Your task to perform on an android device: Search for seafood restaurants on Google Maps Image 0: 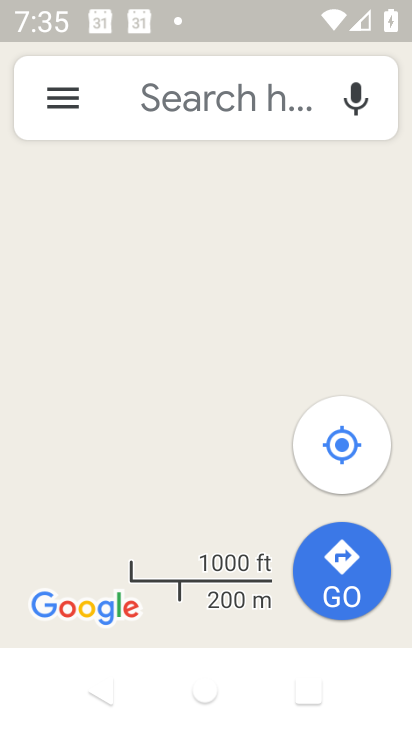
Step 0: press home button
Your task to perform on an android device: Search for seafood restaurants on Google Maps Image 1: 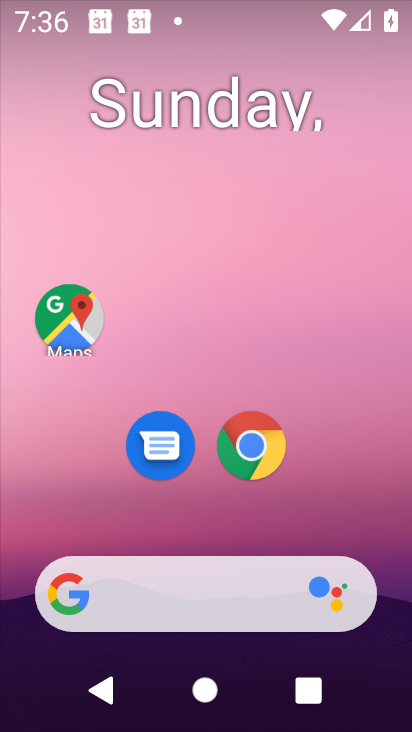
Step 1: click (52, 322)
Your task to perform on an android device: Search for seafood restaurants on Google Maps Image 2: 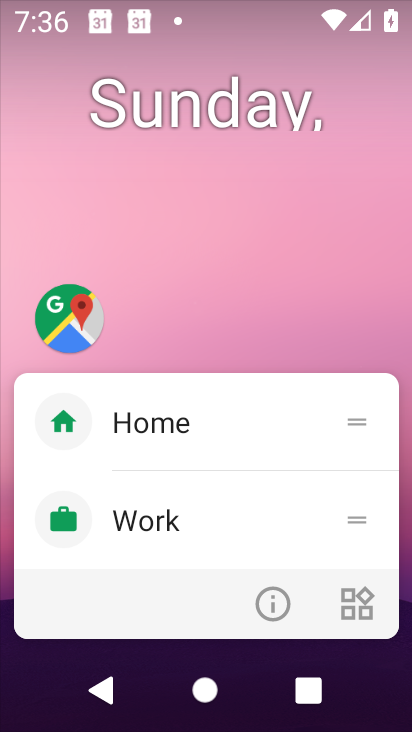
Step 2: click (39, 317)
Your task to perform on an android device: Search for seafood restaurants on Google Maps Image 3: 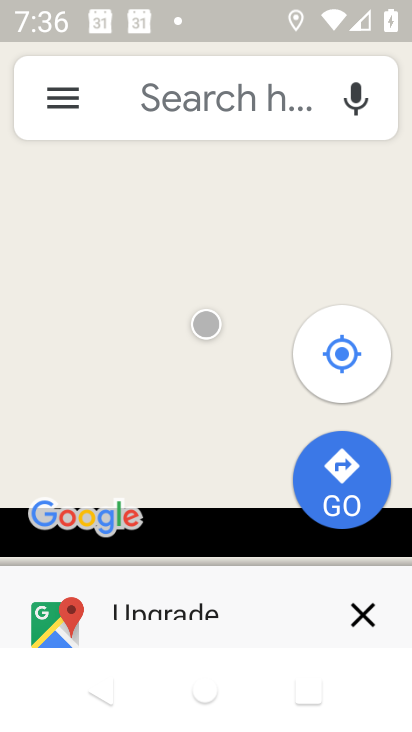
Step 3: click (165, 96)
Your task to perform on an android device: Search for seafood restaurants on Google Maps Image 4: 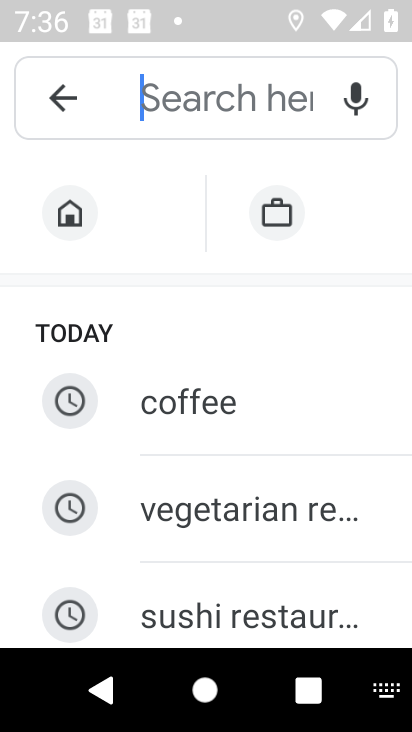
Step 4: drag from (2, 643) to (185, 151)
Your task to perform on an android device: Search for seafood restaurants on Google Maps Image 5: 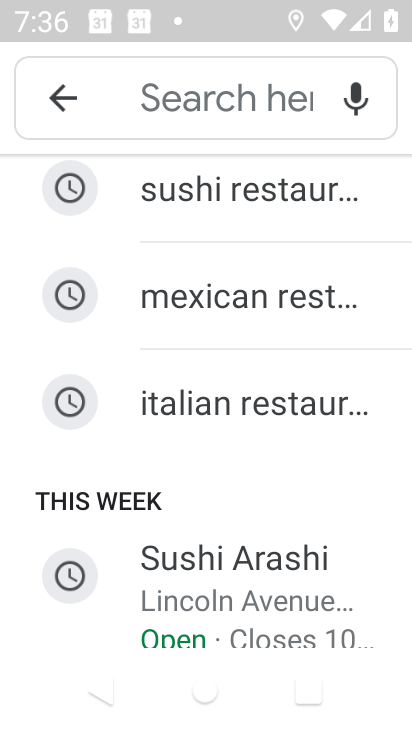
Step 5: click (162, 103)
Your task to perform on an android device: Search for seafood restaurants on Google Maps Image 6: 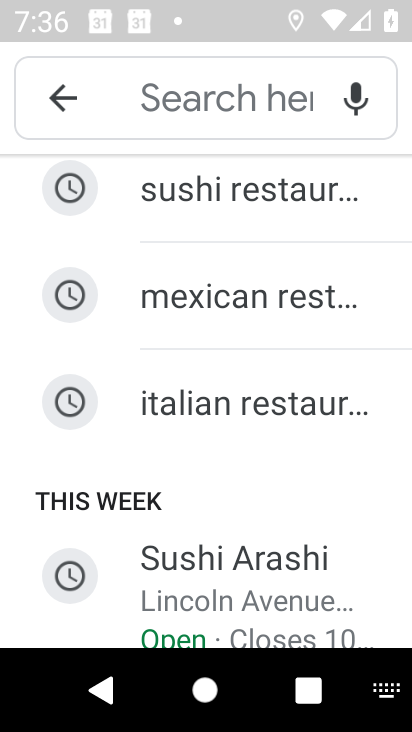
Step 6: type "seafood restaurants"
Your task to perform on an android device: Search for seafood restaurants on Google Maps Image 7: 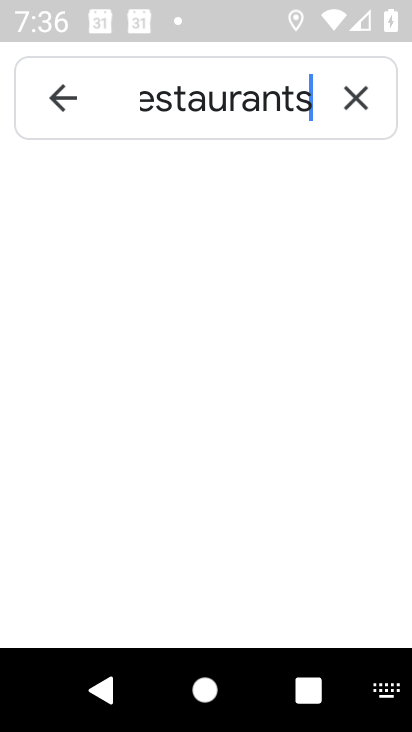
Step 7: type ""
Your task to perform on an android device: Search for seafood restaurants on Google Maps Image 8: 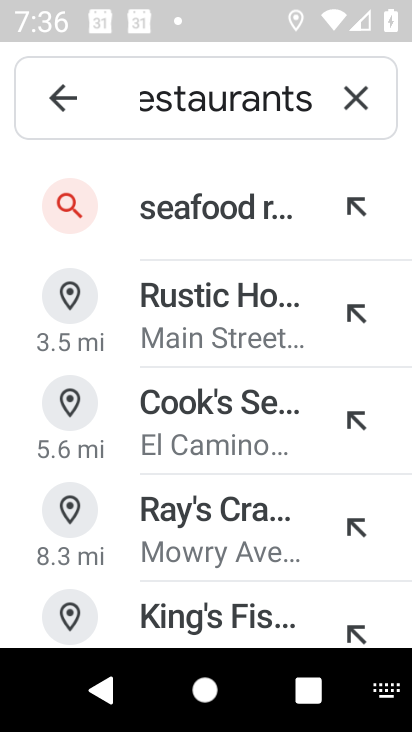
Step 8: click (152, 208)
Your task to perform on an android device: Search for seafood restaurants on Google Maps Image 9: 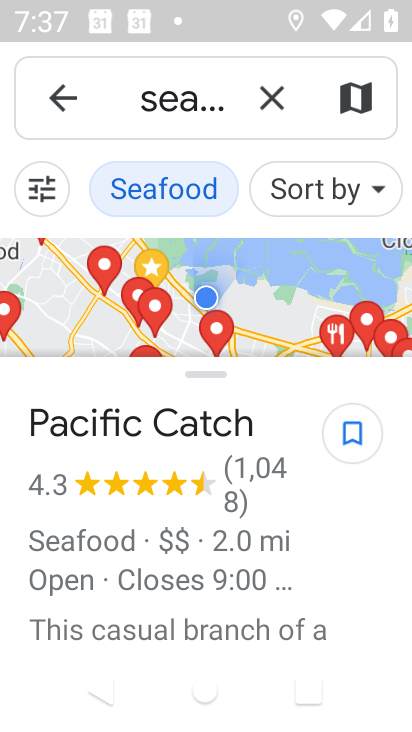
Step 9: task complete